Your task to perform on an android device: toggle javascript in the chrome app Image 0: 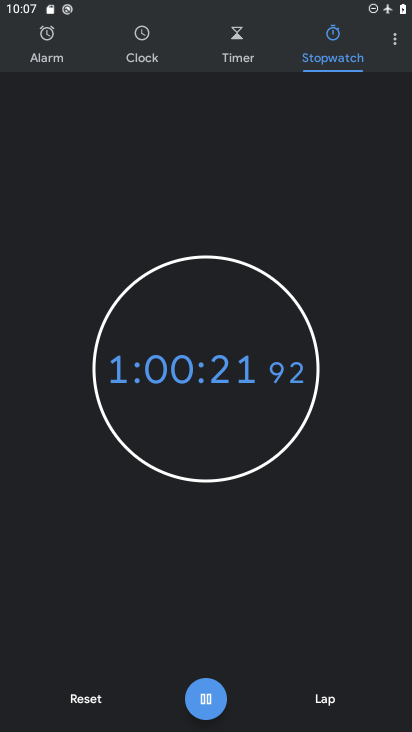
Step 0: press home button
Your task to perform on an android device: toggle javascript in the chrome app Image 1: 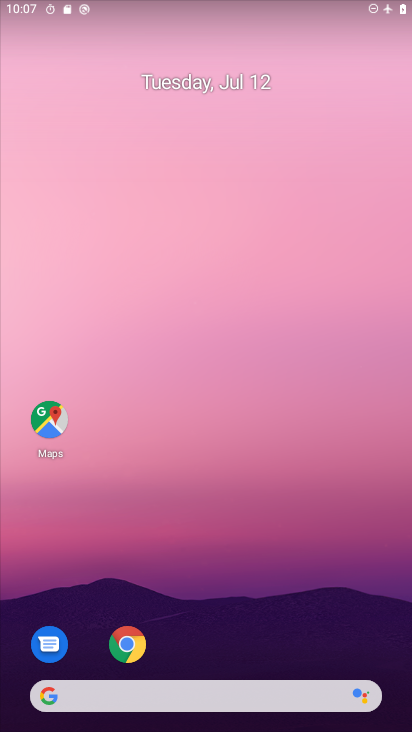
Step 1: click (139, 652)
Your task to perform on an android device: toggle javascript in the chrome app Image 2: 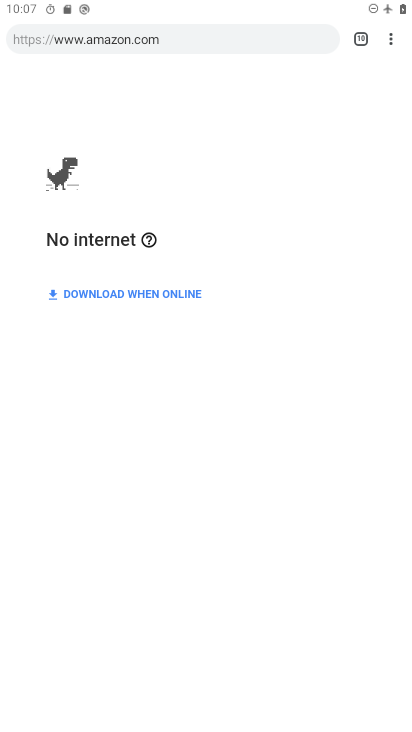
Step 2: click (392, 39)
Your task to perform on an android device: toggle javascript in the chrome app Image 3: 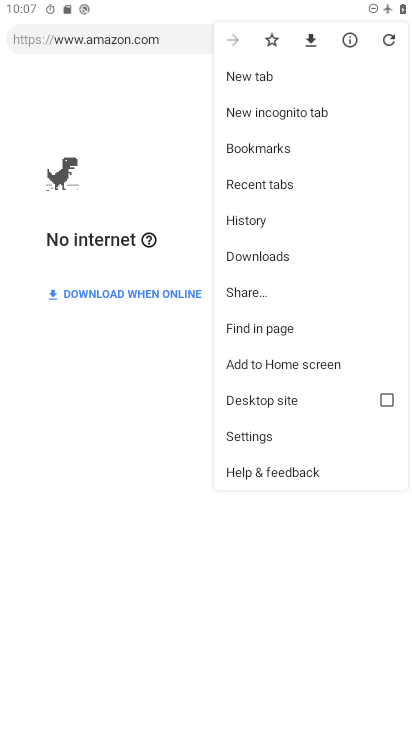
Step 3: click (265, 439)
Your task to perform on an android device: toggle javascript in the chrome app Image 4: 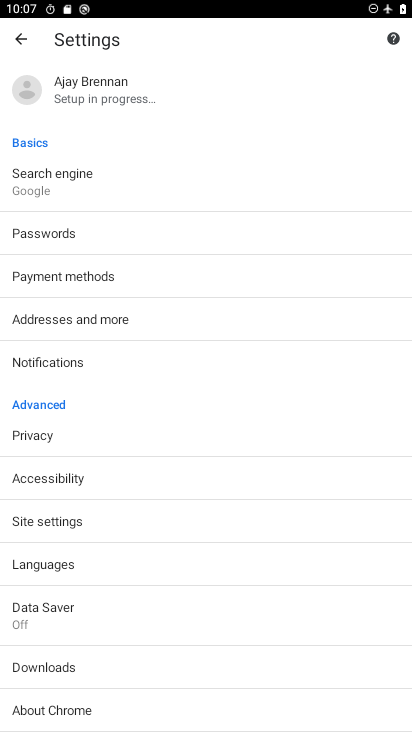
Step 4: click (102, 507)
Your task to perform on an android device: toggle javascript in the chrome app Image 5: 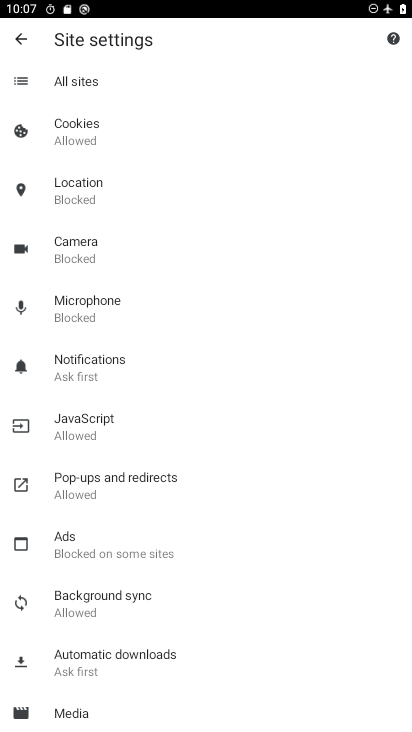
Step 5: click (132, 416)
Your task to perform on an android device: toggle javascript in the chrome app Image 6: 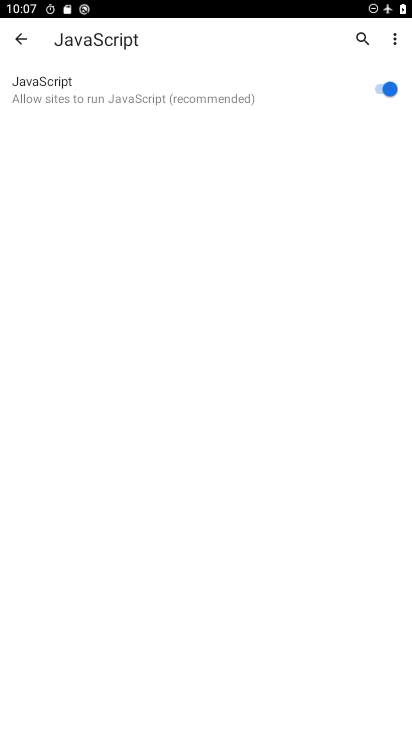
Step 6: click (379, 90)
Your task to perform on an android device: toggle javascript in the chrome app Image 7: 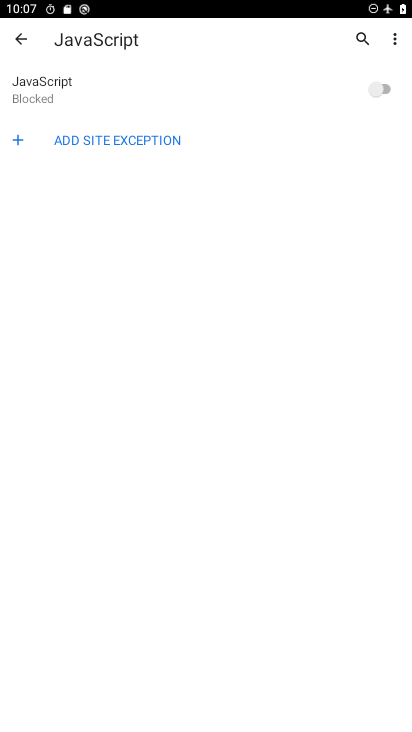
Step 7: task complete